Your task to perform on an android device: Clear the cart on ebay.com. Search for "panasonic triple a" on ebay.com, select the first entry, and add it to the cart. Image 0: 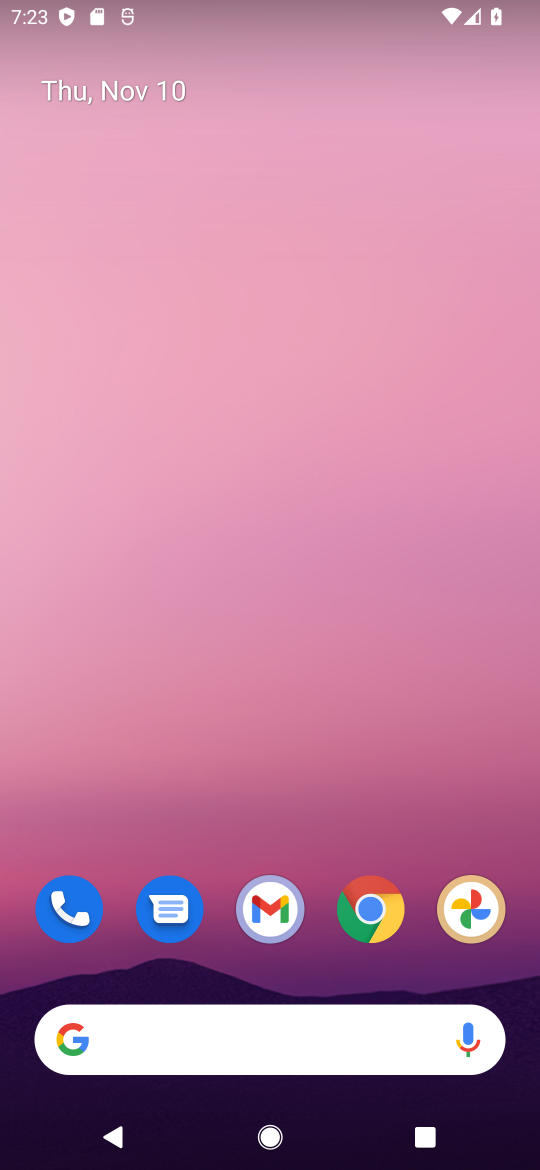
Step 0: drag from (230, 1022) to (252, 237)
Your task to perform on an android device: Clear the cart on ebay.com. Search for "panasonic triple a" on ebay.com, select the first entry, and add it to the cart. Image 1: 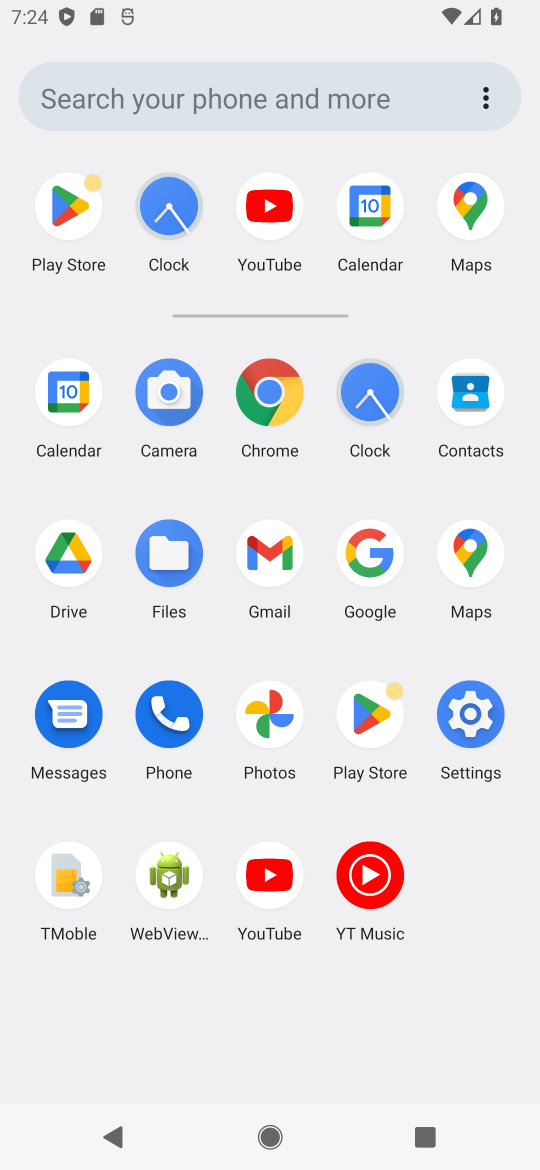
Step 1: click (376, 547)
Your task to perform on an android device: Clear the cart on ebay.com. Search for "panasonic triple a" on ebay.com, select the first entry, and add it to the cart. Image 2: 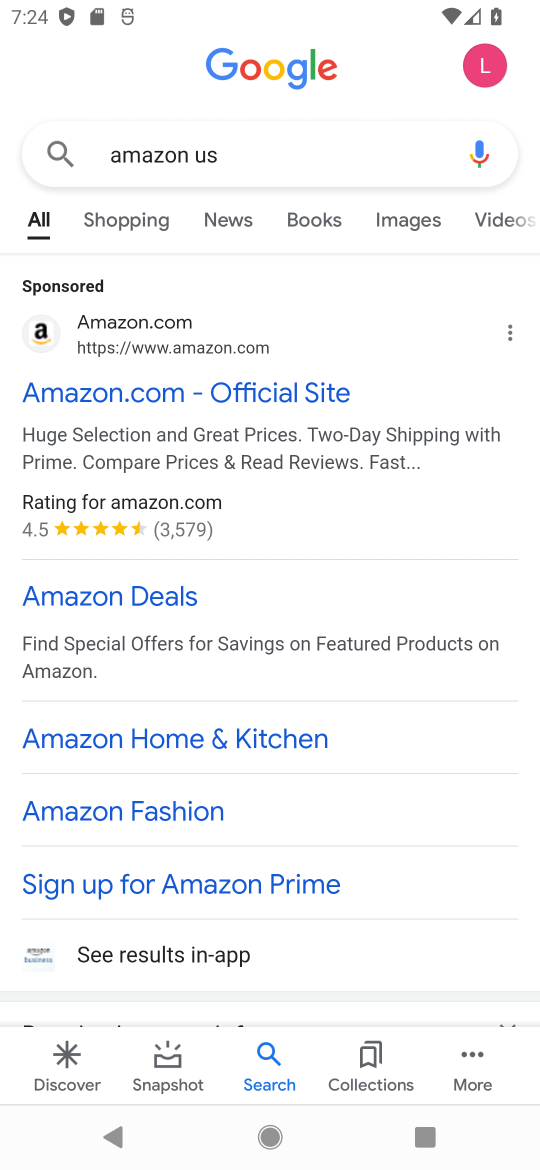
Step 2: click (269, 140)
Your task to perform on an android device: Clear the cart on ebay.com. Search for "panasonic triple a" on ebay.com, select the first entry, and add it to the cart. Image 3: 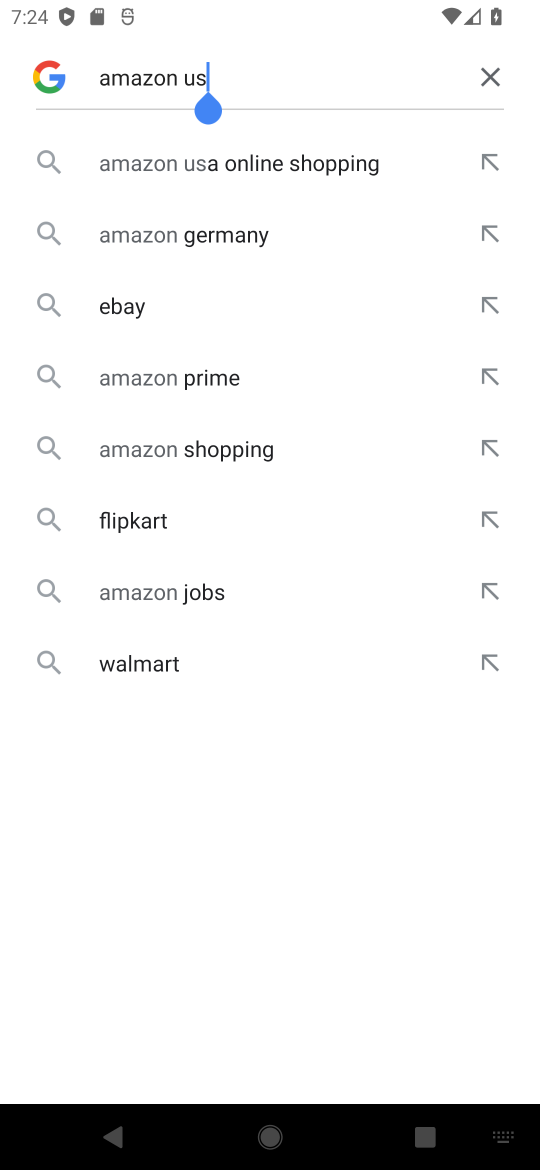
Step 3: click (490, 77)
Your task to perform on an android device: Clear the cart on ebay.com. Search for "panasonic triple a" on ebay.com, select the first entry, and add it to the cart. Image 4: 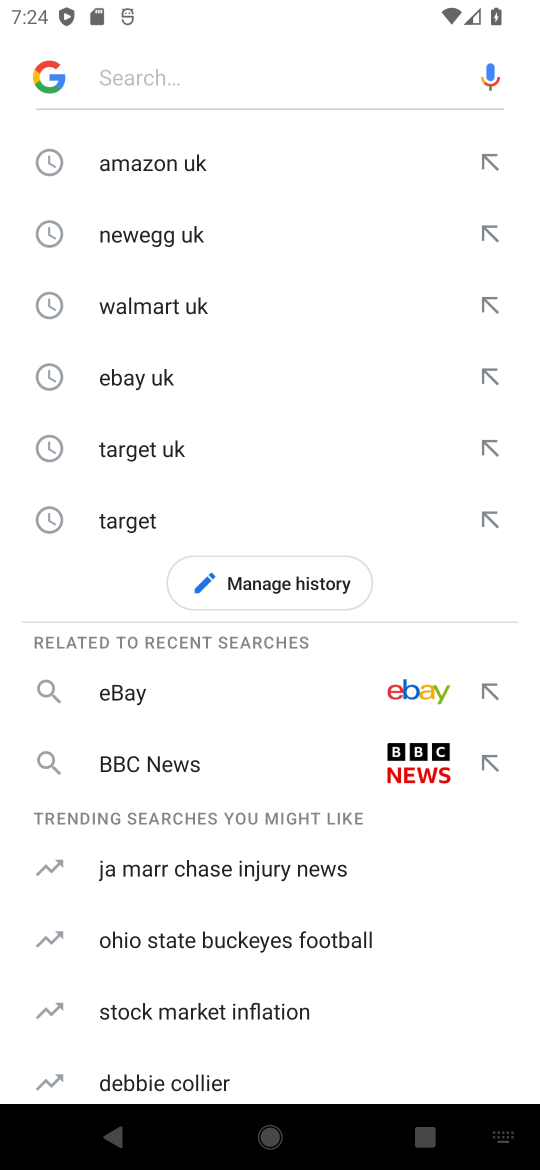
Step 4: click (182, 69)
Your task to perform on an android device: Clear the cart on ebay.com. Search for "panasonic triple a" on ebay.com, select the first entry, and add it to the cart. Image 5: 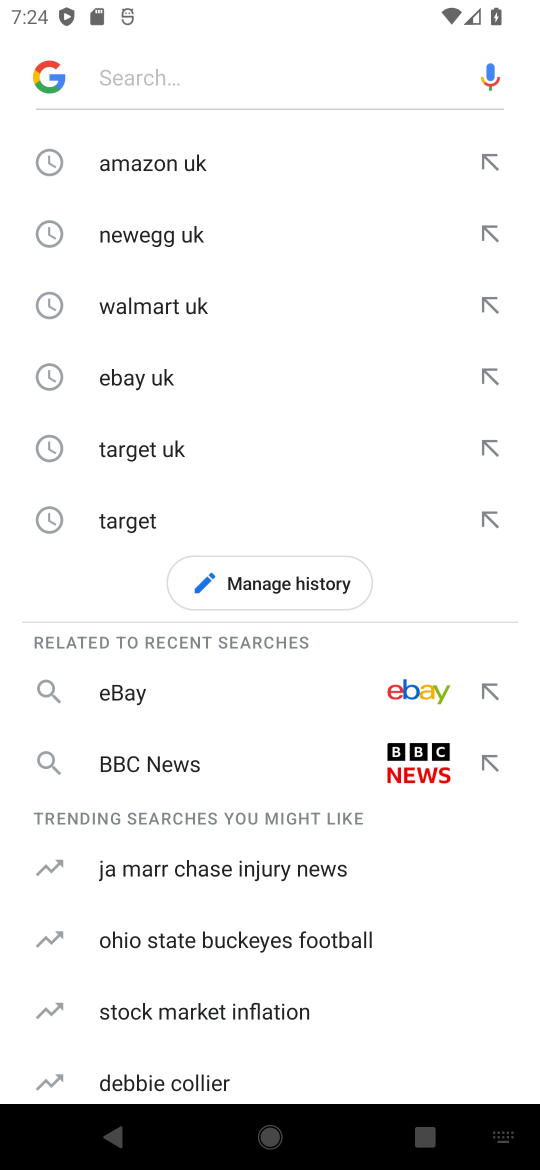
Step 5: type "ebay "
Your task to perform on an android device: Clear the cart on ebay.com. Search for "panasonic triple a" on ebay.com, select the first entry, and add it to the cart. Image 6: 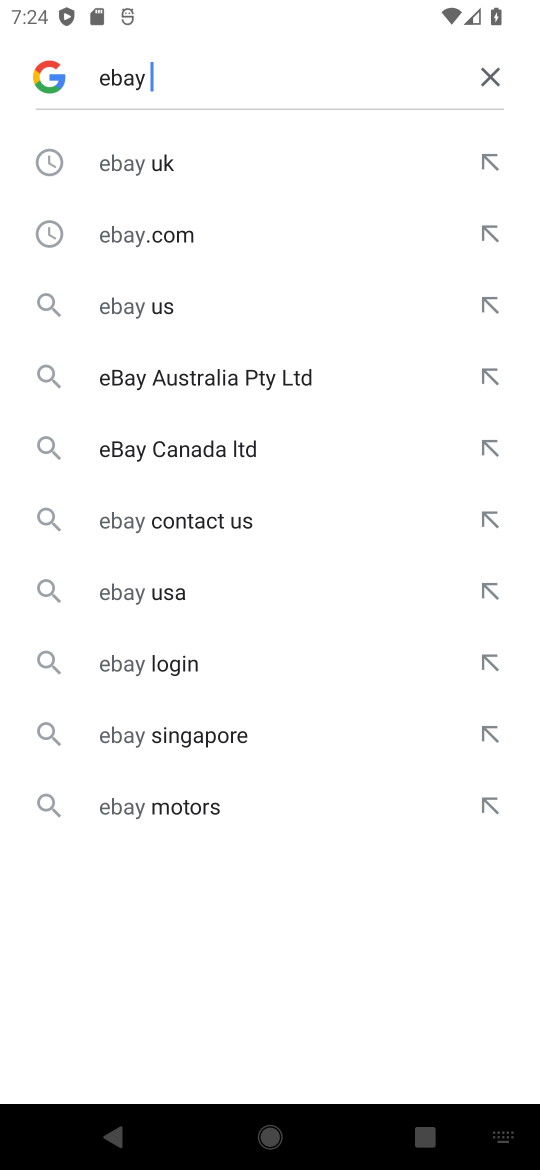
Step 6: click (184, 155)
Your task to perform on an android device: Clear the cart on ebay.com. Search for "panasonic triple a" on ebay.com, select the first entry, and add it to the cart. Image 7: 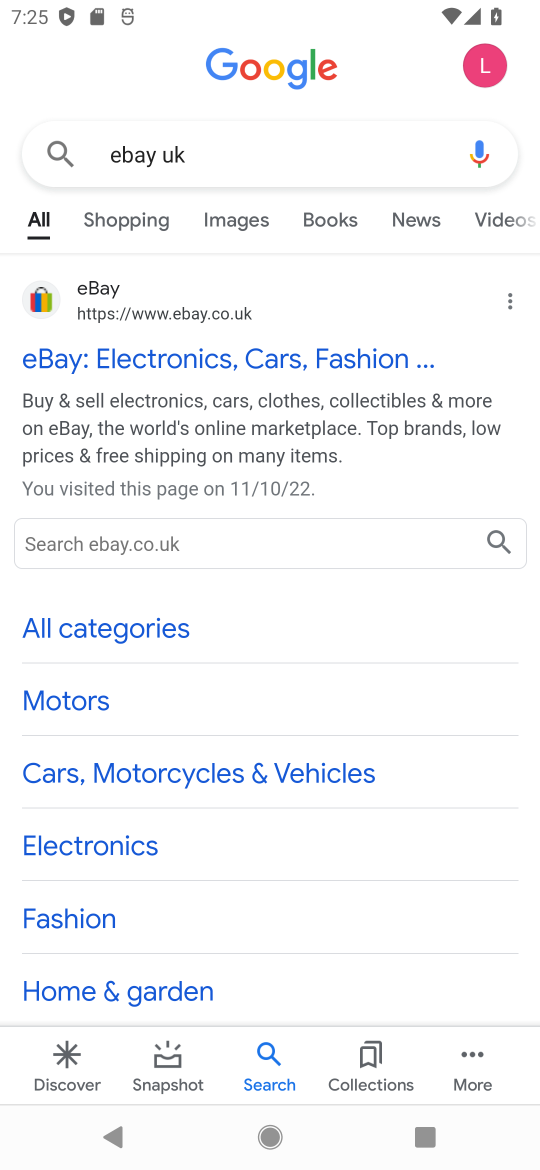
Step 7: click (33, 279)
Your task to perform on an android device: Clear the cart on ebay.com. Search for "panasonic triple a" on ebay.com, select the first entry, and add it to the cart. Image 8: 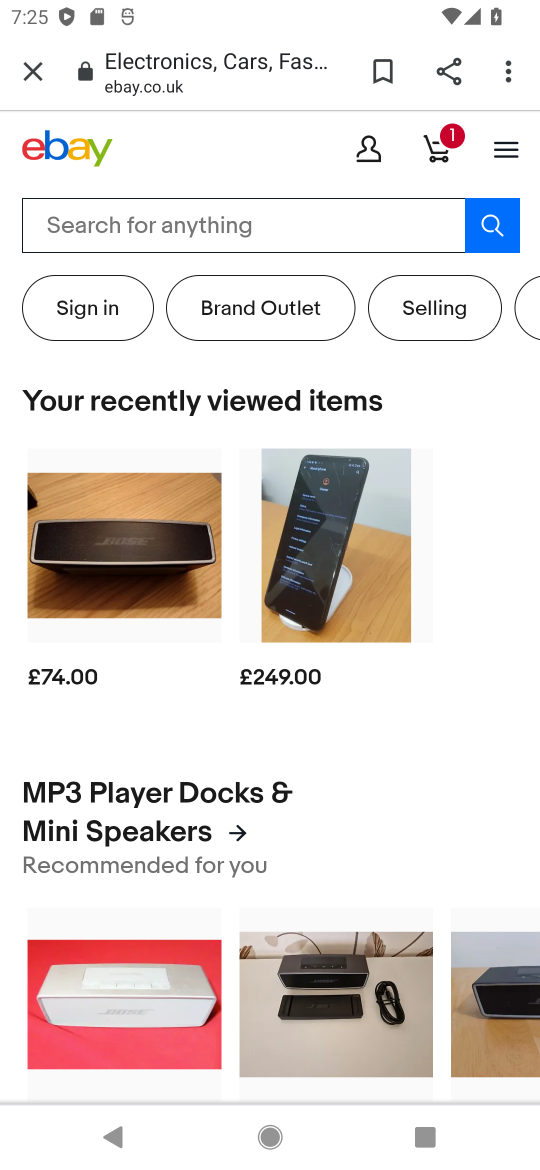
Step 8: click (252, 205)
Your task to perform on an android device: Clear the cart on ebay.com. Search for "panasonic triple a" on ebay.com, select the first entry, and add it to the cart. Image 9: 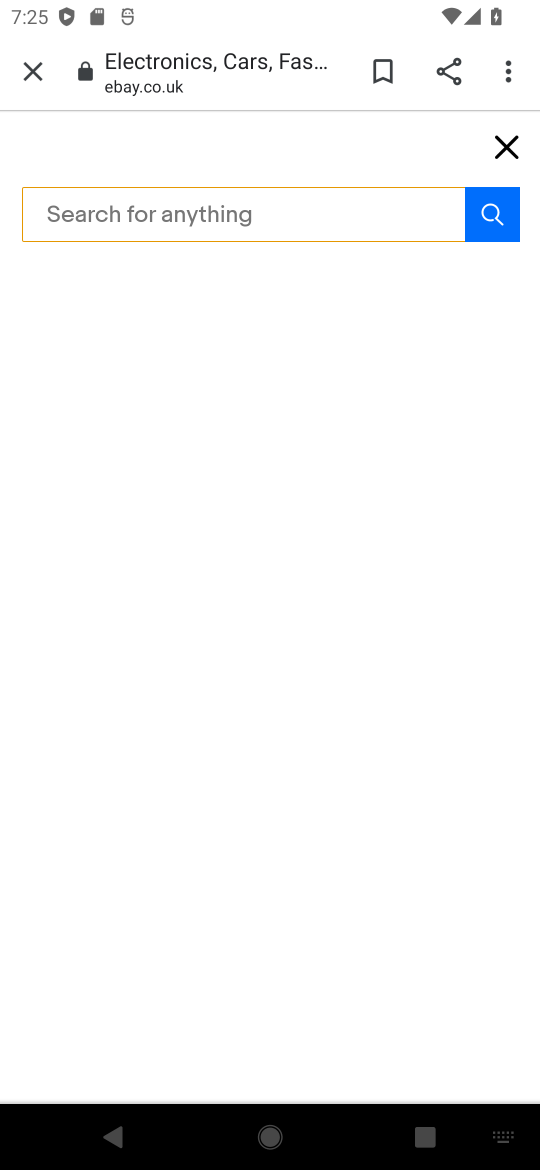
Step 9: click (365, 209)
Your task to perform on an android device: Clear the cart on ebay.com. Search for "panasonic triple a" on ebay.com, select the first entry, and add it to the cart. Image 10: 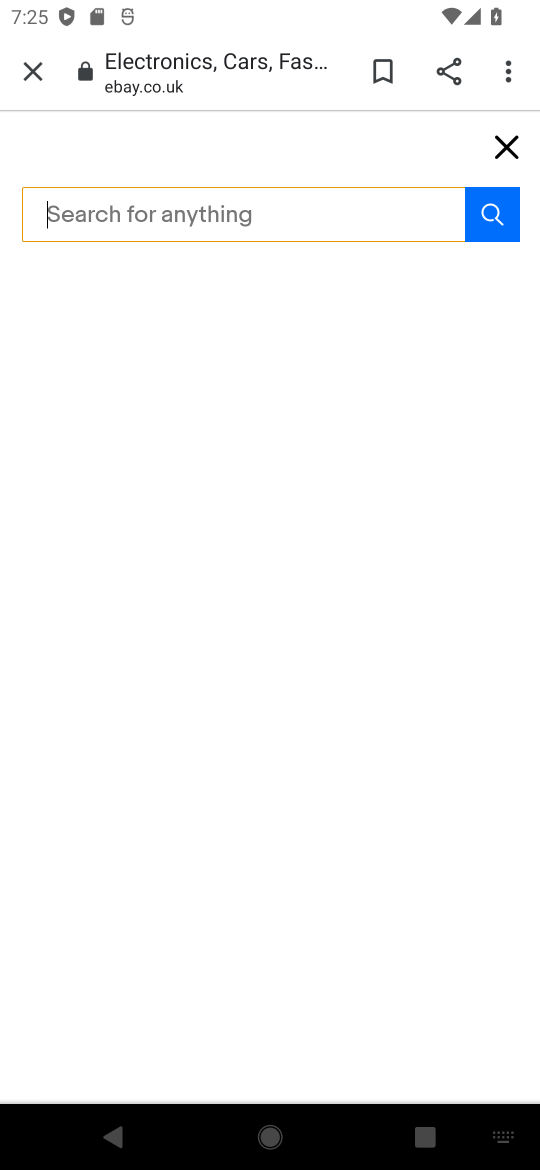
Step 10: type "triple "
Your task to perform on an android device: Clear the cart on ebay.com. Search for "panasonic triple a" on ebay.com, select the first entry, and add it to the cart. Image 11: 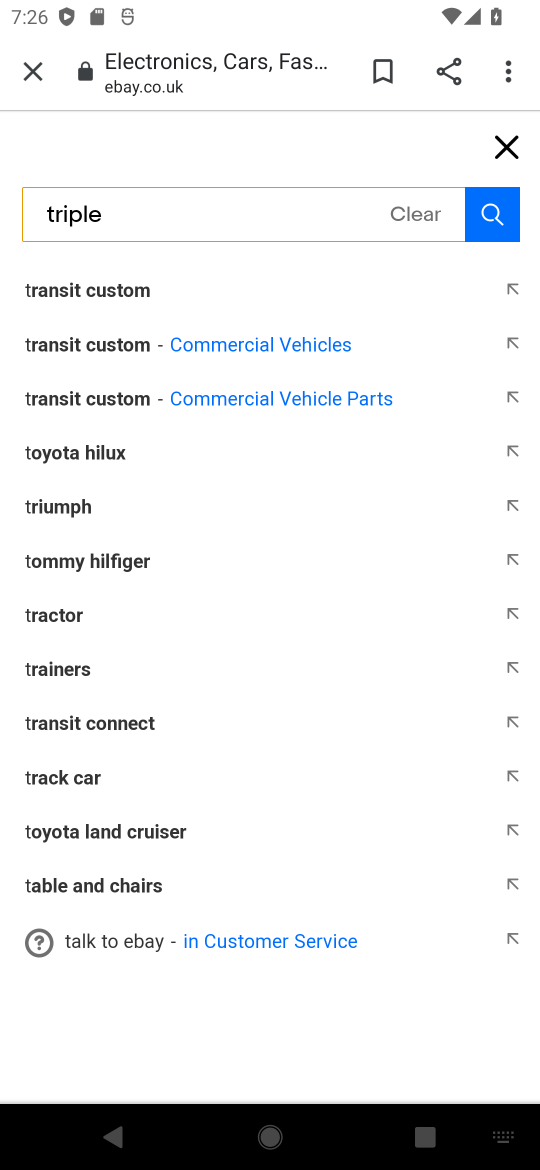
Step 11: click (475, 216)
Your task to perform on an android device: Clear the cart on ebay.com. Search for "panasonic triple a" on ebay.com, select the first entry, and add it to the cart. Image 12: 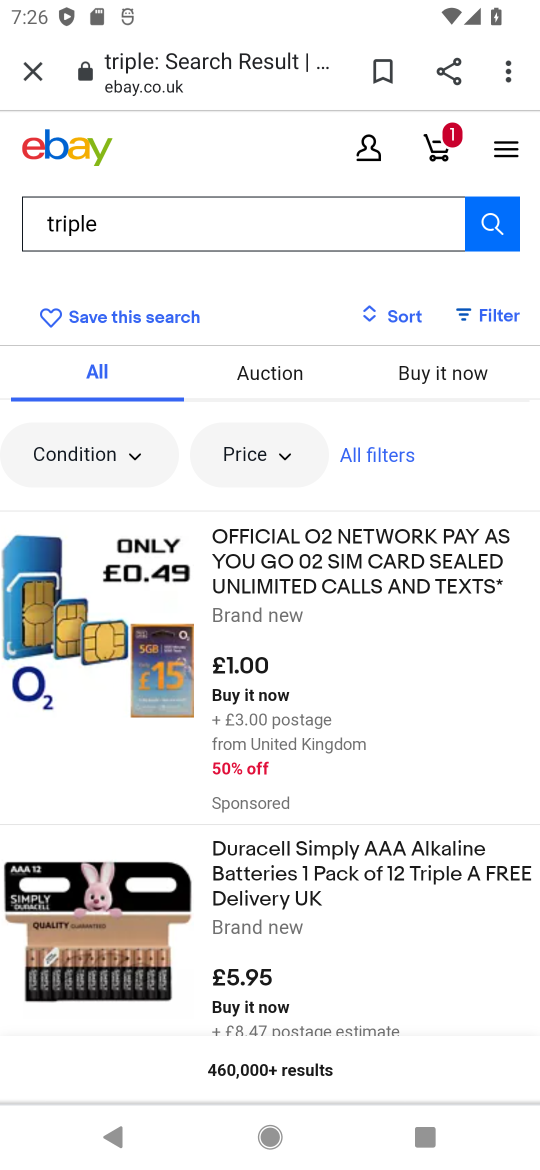
Step 12: drag from (281, 853) to (268, 379)
Your task to perform on an android device: Clear the cart on ebay.com. Search for "panasonic triple a" on ebay.com, select the first entry, and add it to the cart. Image 13: 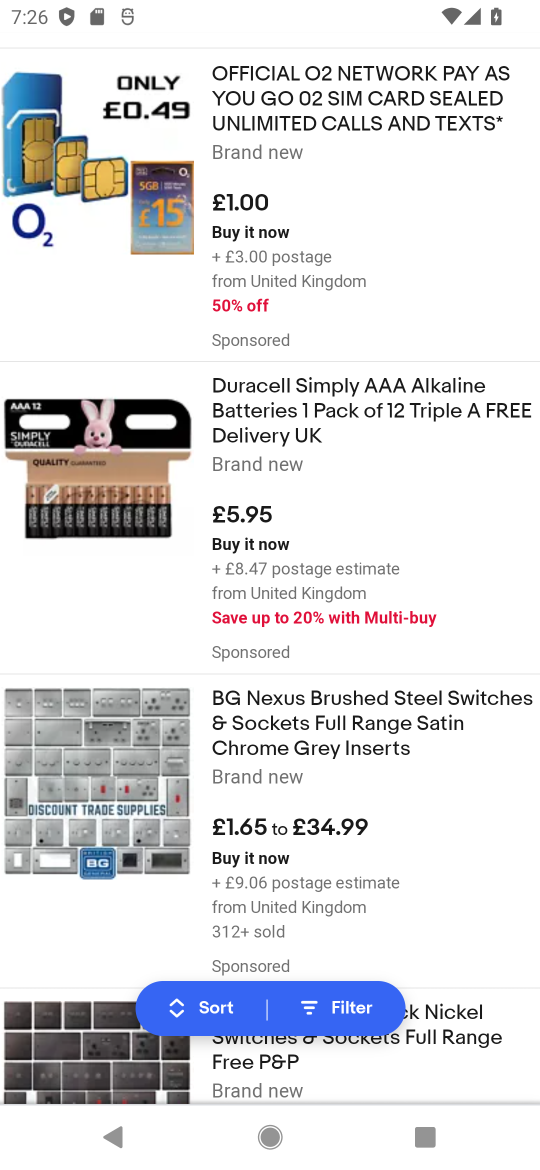
Step 13: drag from (363, 821) to (354, 300)
Your task to perform on an android device: Clear the cart on ebay.com. Search for "panasonic triple a" on ebay.com, select the first entry, and add it to the cart. Image 14: 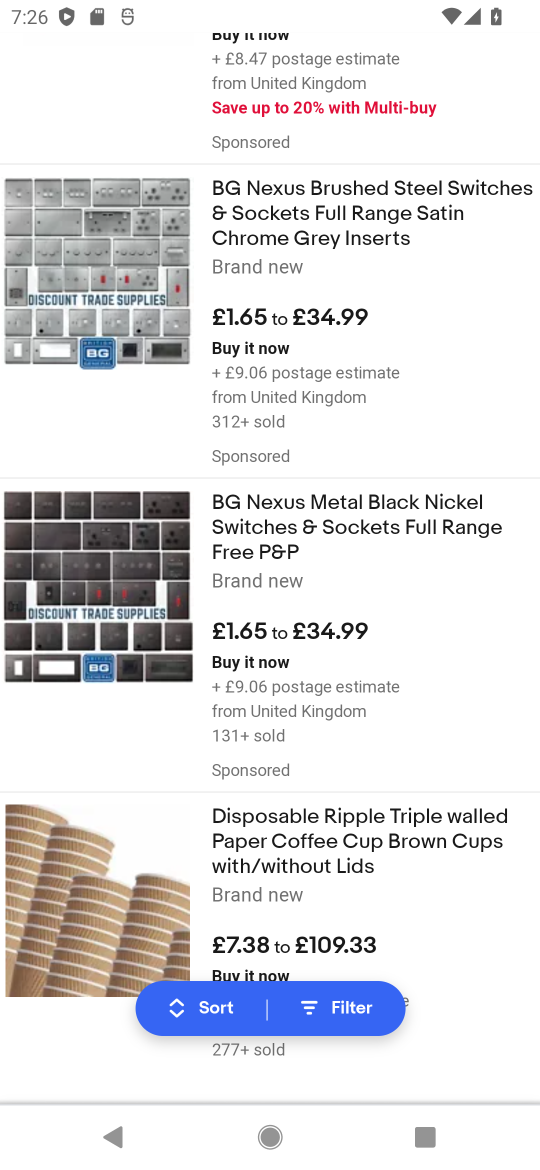
Step 14: drag from (355, 742) to (355, 106)
Your task to perform on an android device: Clear the cart on ebay.com. Search for "panasonic triple a" on ebay.com, select the first entry, and add it to the cart. Image 15: 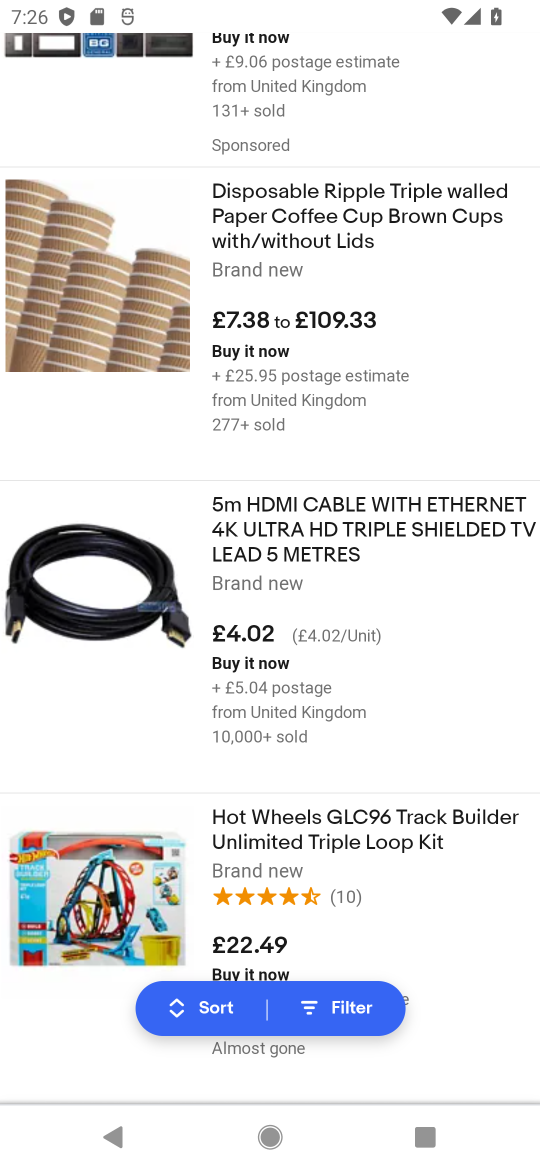
Step 15: drag from (334, 674) to (309, 208)
Your task to perform on an android device: Clear the cart on ebay.com. Search for "panasonic triple a" on ebay.com, select the first entry, and add it to the cart. Image 16: 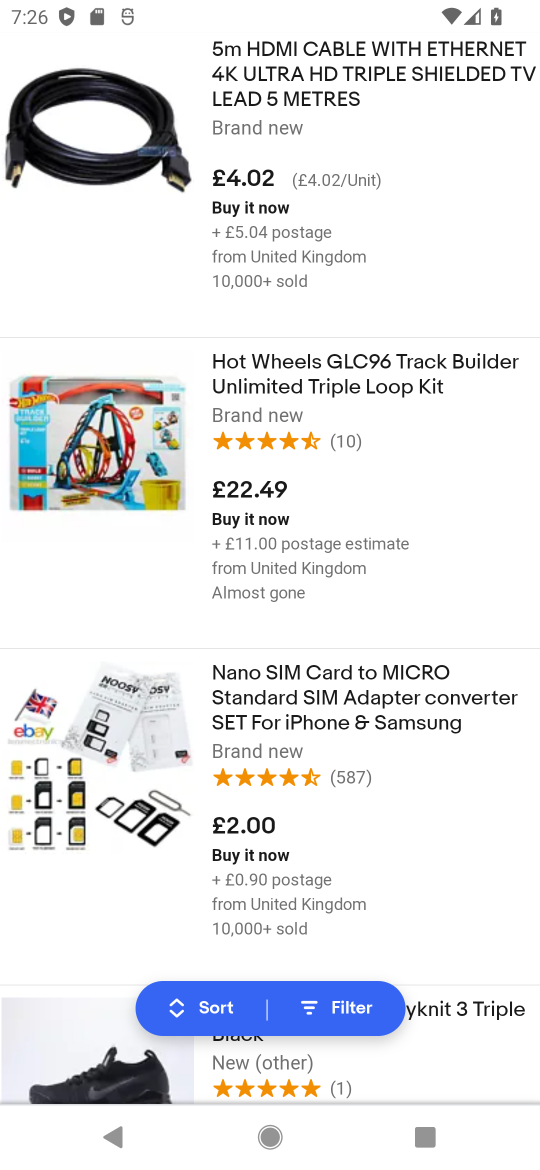
Step 16: drag from (316, 131) to (337, 759)
Your task to perform on an android device: Clear the cart on ebay.com. Search for "panasonic triple a" on ebay.com, select the first entry, and add it to the cart. Image 17: 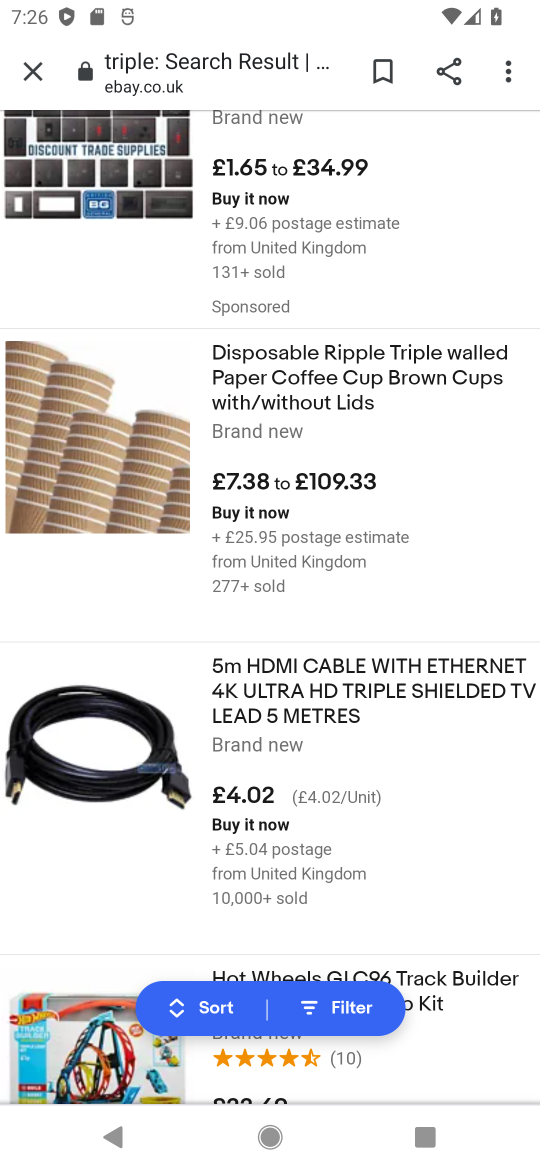
Step 17: drag from (256, 196) to (310, 989)
Your task to perform on an android device: Clear the cart on ebay.com. Search for "panasonic triple a" on ebay.com, select the first entry, and add it to the cart. Image 18: 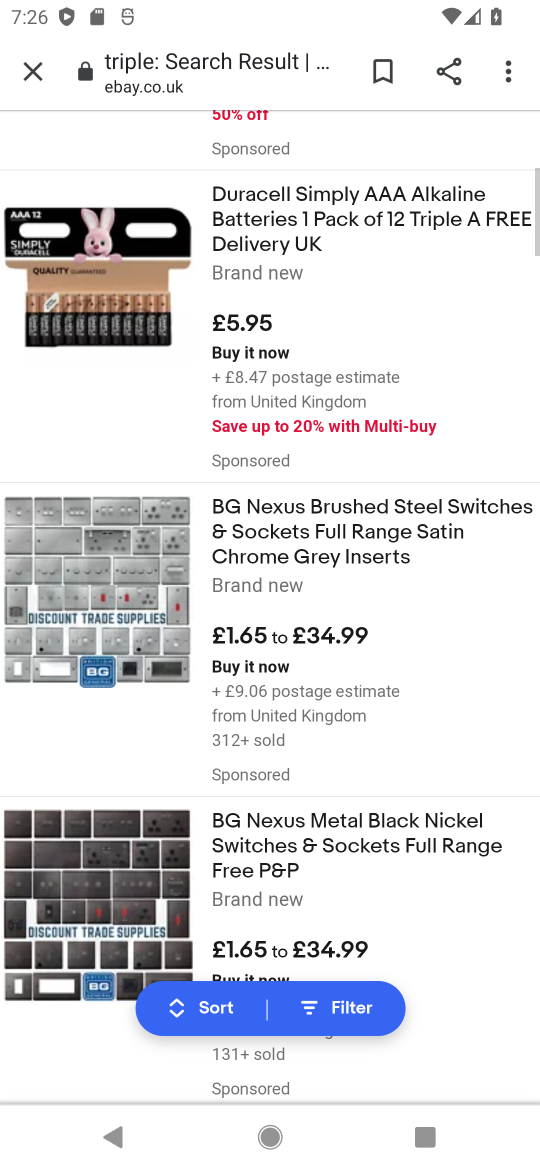
Step 18: drag from (248, 235) to (264, 1046)
Your task to perform on an android device: Clear the cart on ebay.com. Search for "panasonic triple a" on ebay.com, select the first entry, and add it to the cart. Image 19: 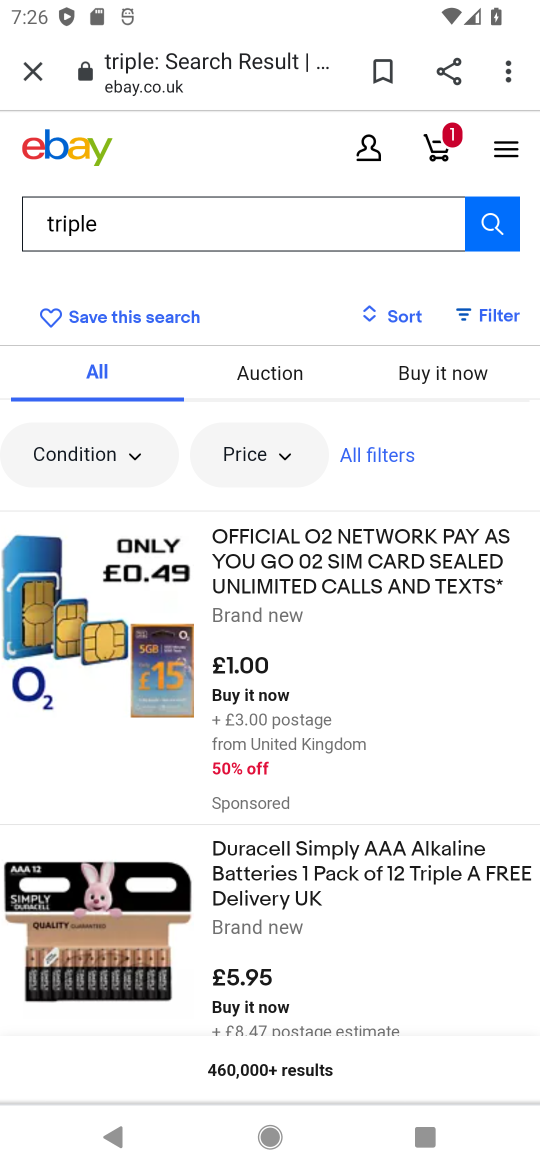
Step 19: click (219, 216)
Your task to perform on an android device: Clear the cart on ebay.com. Search for "panasonic triple a" on ebay.com, select the first entry, and add it to the cart. Image 20: 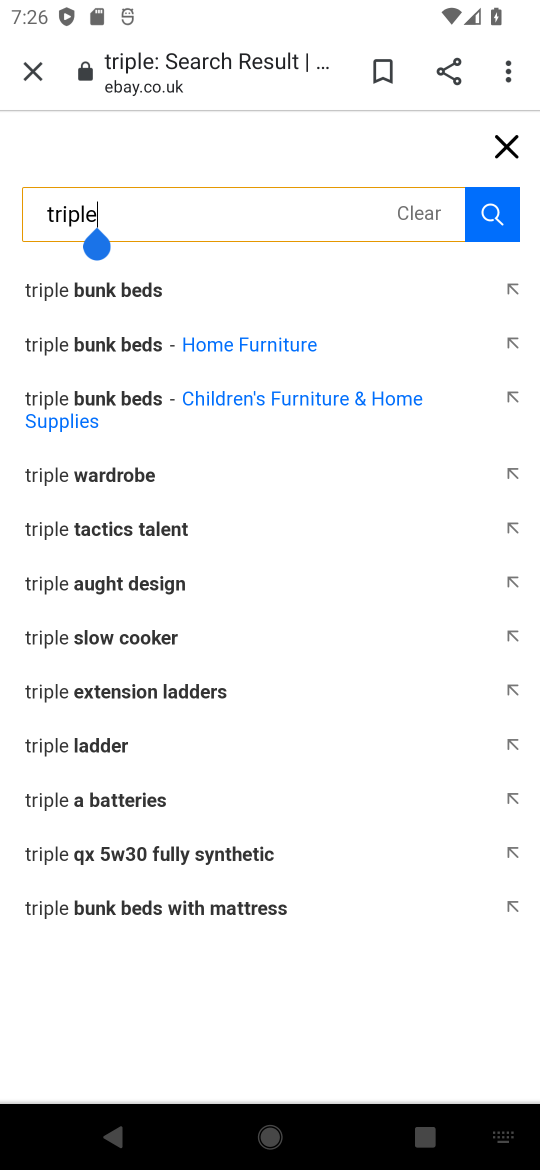
Step 20: click (424, 207)
Your task to perform on an android device: Clear the cart on ebay.com. Search for "panasonic triple a" on ebay.com, select the first entry, and add it to the cart. Image 21: 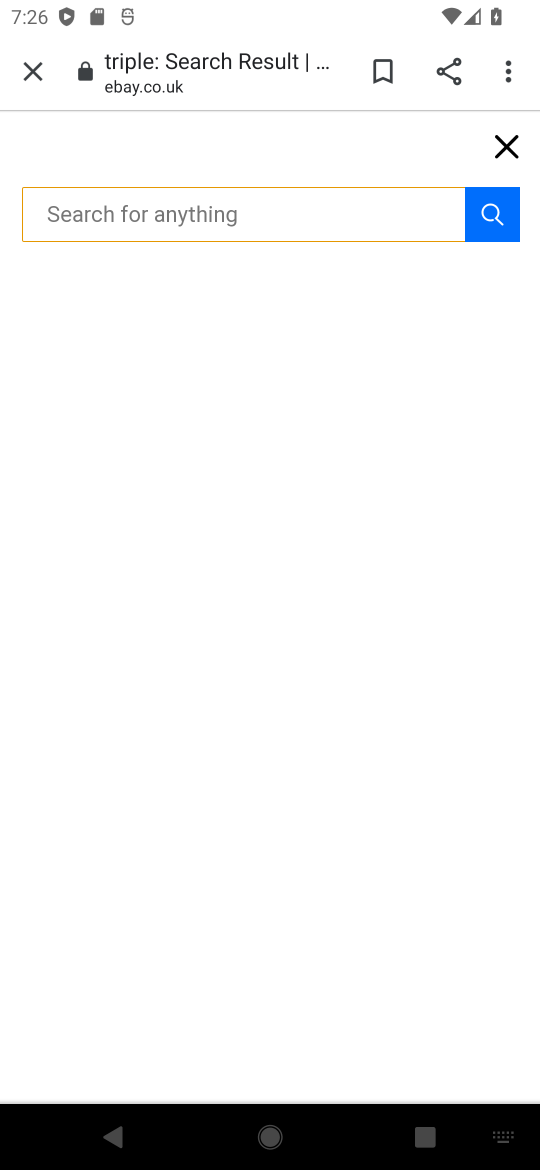
Step 21: click (245, 202)
Your task to perform on an android device: Clear the cart on ebay.com. Search for "panasonic triple a" on ebay.com, select the first entry, and add it to the cart. Image 22: 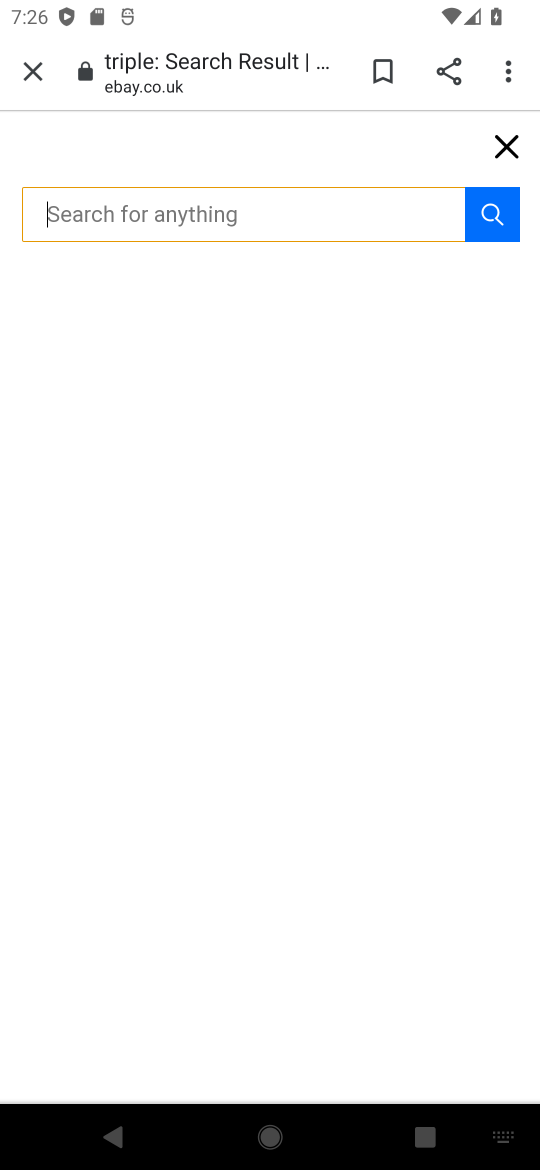
Step 22: type "panasonic "
Your task to perform on an android device: Clear the cart on ebay.com. Search for "panasonic triple a" on ebay.com, select the first entry, and add it to the cart. Image 23: 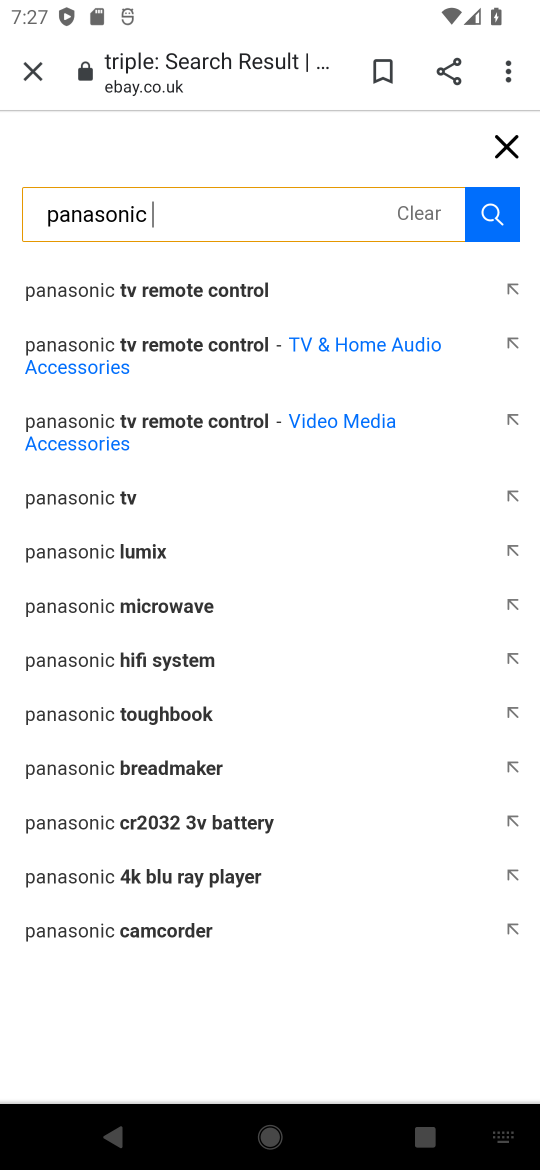
Step 23: click (149, 817)
Your task to perform on an android device: Clear the cart on ebay.com. Search for "panasonic triple a" on ebay.com, select the first entry, and add it to the cart. Image 24: 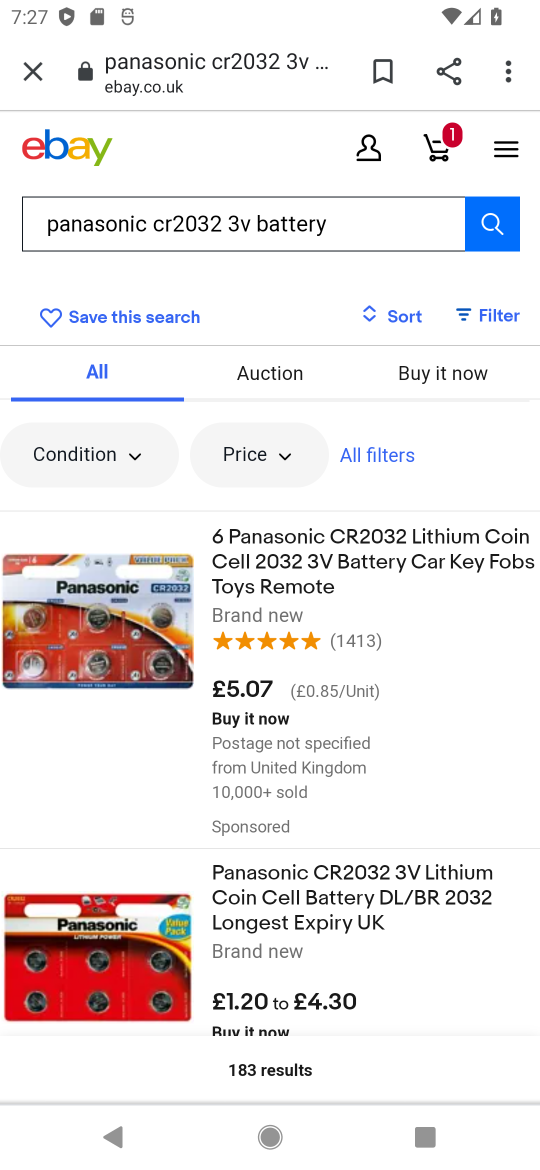
Step 24: drag from (332, 977) to (345, 486)
Your task to perform on an android device: Clear the cart on ebay.com. Search for "panasonic triple a" on ebay.com, select the first entry, and add it to the cart. Image 25: 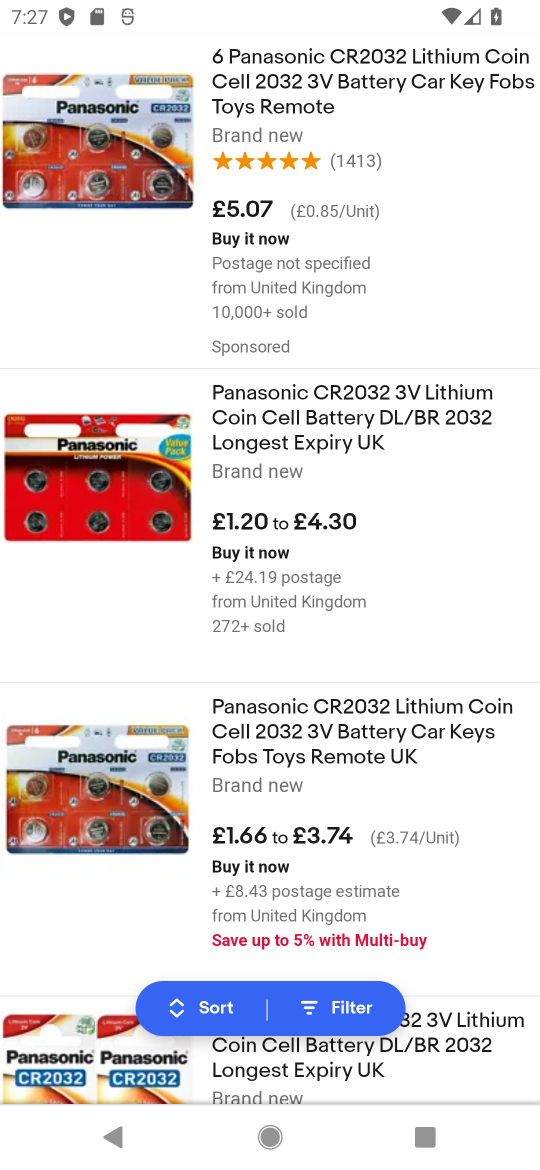
Step 25: drag from (262, 798) to (276, 477)
Your task to perform on an android device: Clear the cart on ebay.com. Search for "panasonic triple a" on ebay.com, select the first entry, and add it to the cart. Image 26: 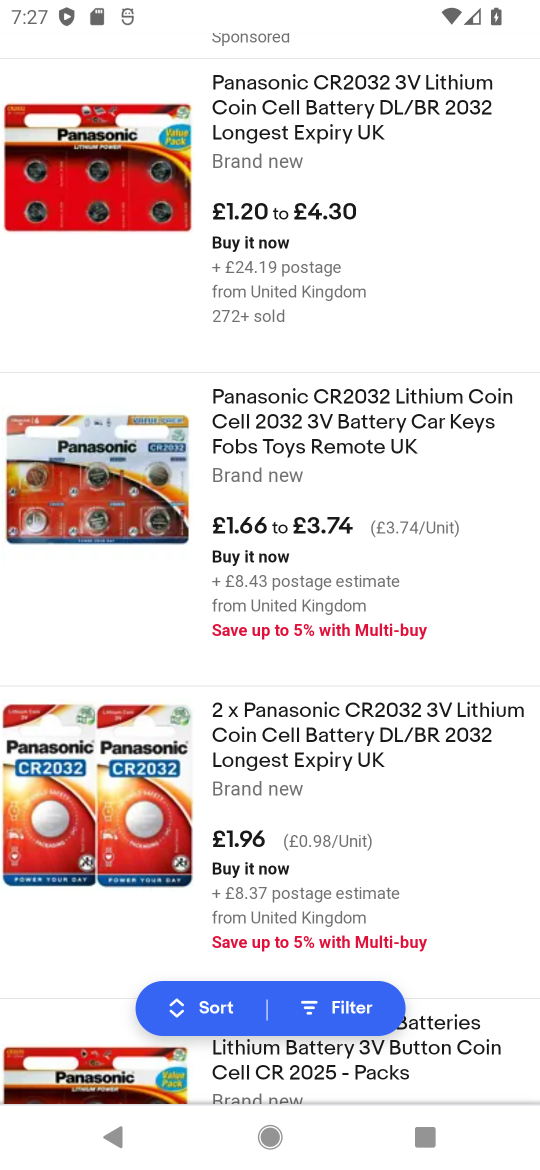
Step 26: click (284, 740)
Your task to perform on an android device: Clear the cart on ebay.com. Search for "panasonic triple a" on ebay.com, select the first entry, and add it to the cart. Image 27: 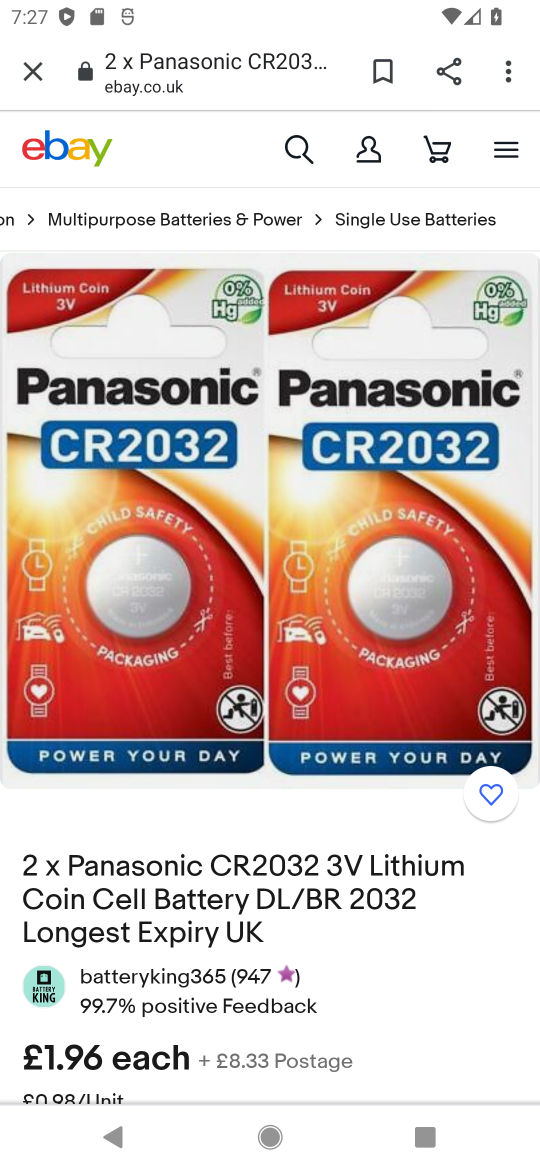
Step 27: drag from (239, 946) to (289, 355)
Your task to perform on an android device: Clear the cart on ebay.com. Search for "panasonic triple a" on ebay.com, select the first entry, and add it to the cart. Image 28: 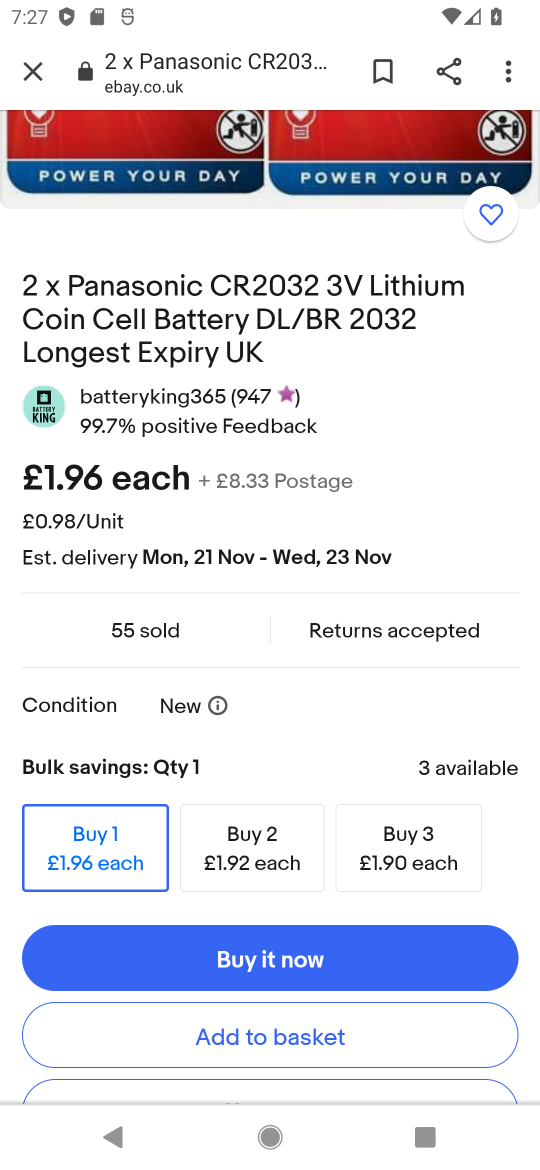
Step 28: click (262, 963)
Your task to perform on an android device: Clear the cart on ebay.com. Search for "panasonic triple a" on ebay.com, select the first entry, and add it to the cart. Image 29: 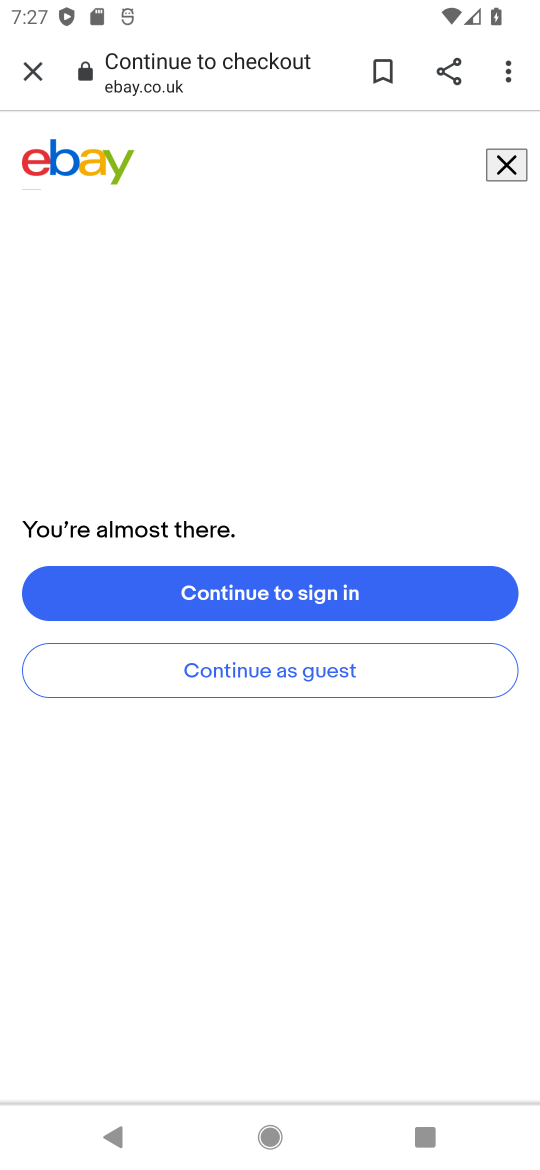
Step 29: press back button
Your task to perform on an android device: Clear the cart on ebay.com. Search for "panasonic triple a" on ebay.com, select the first entry, and add it to the cart. Image 30: 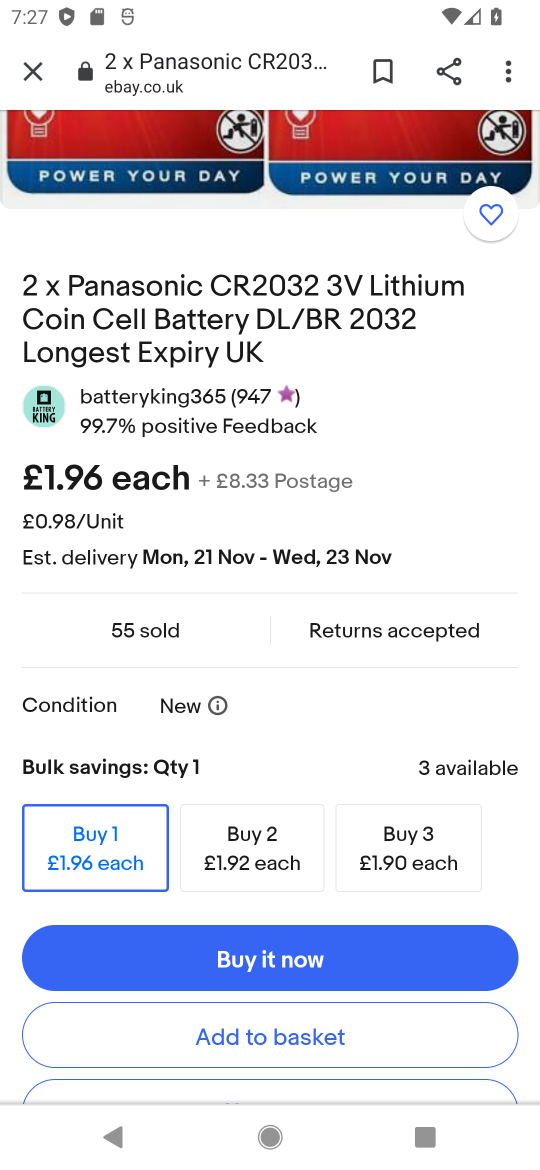
Step 30: click (218, 1048)
Your task to perform on an android device: Clear the cart on ebay.com. Search for "panasonic triple a" on ebay.com, select the first entry, and add it to the cart. Image 31: 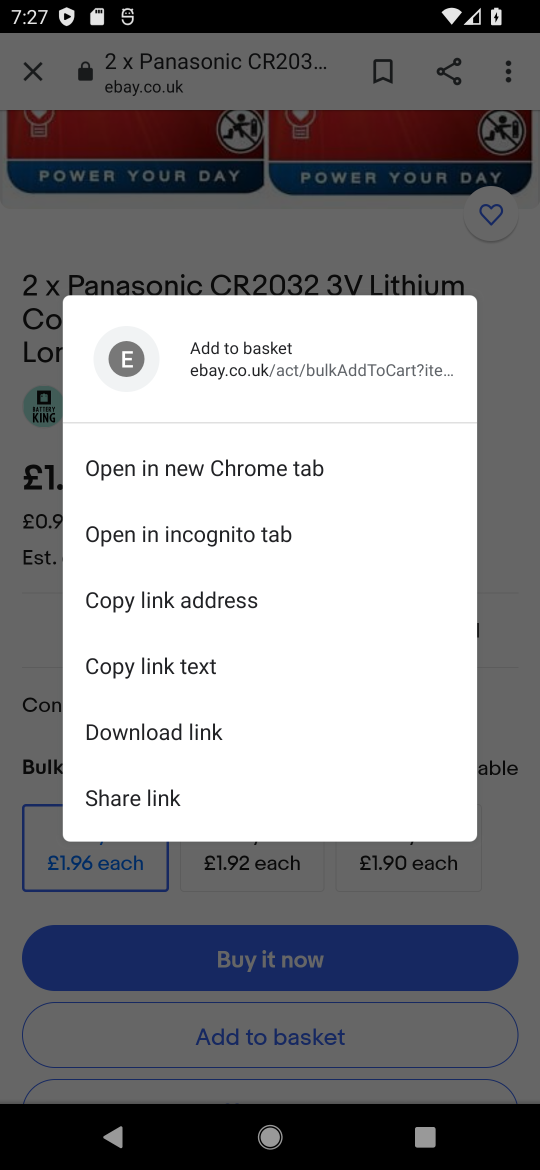
Step 31: click (218, 1037)
Your task to perform on an android device: Clear the cart on ebay.com. Search for "panasonic triple a" on ebay.com, select the first entry, and add it to the cart. Image 32: 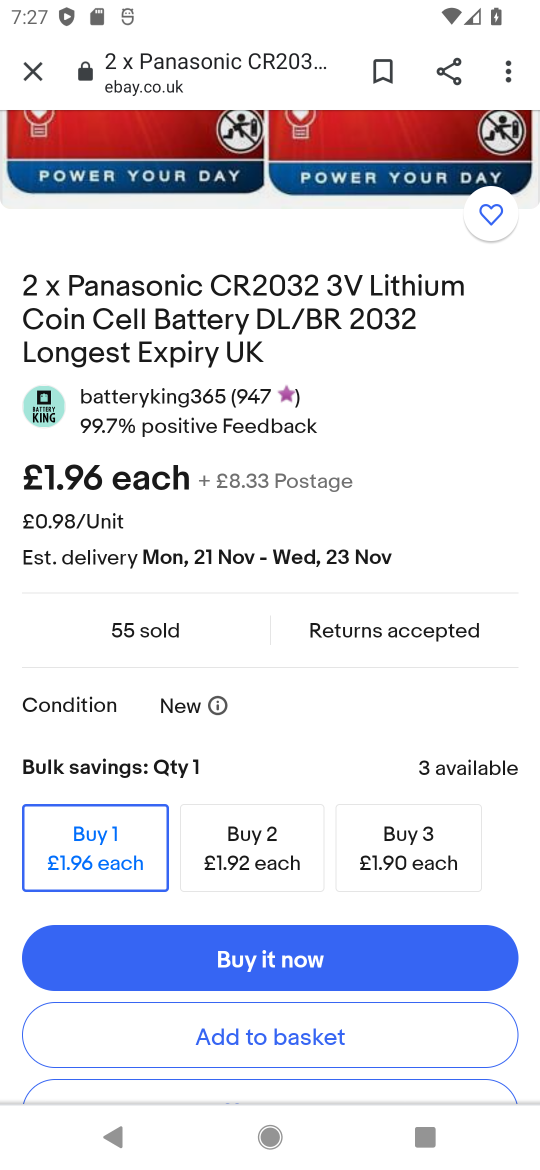
Step 32: click (218, 1037)
Your task to perform on an android device: Clear the cart on ebay.com. Search for "panasonic triple a" on ebay.com, select the first entry, and add it to the cart. Image 33: 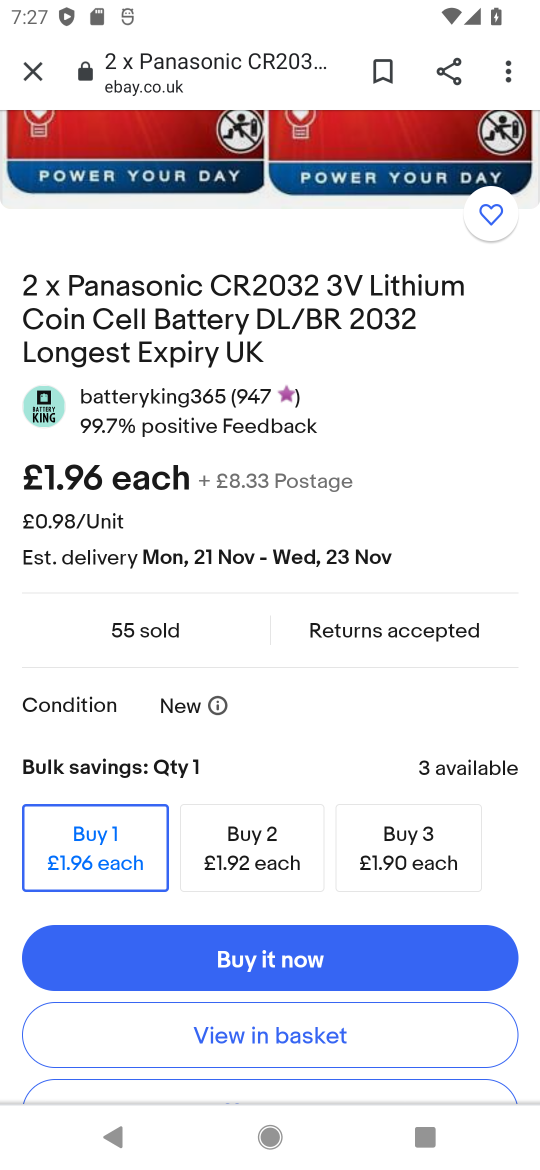
Step 33: task complete